Your task to perform on an android device: Open internet settings Image 0: 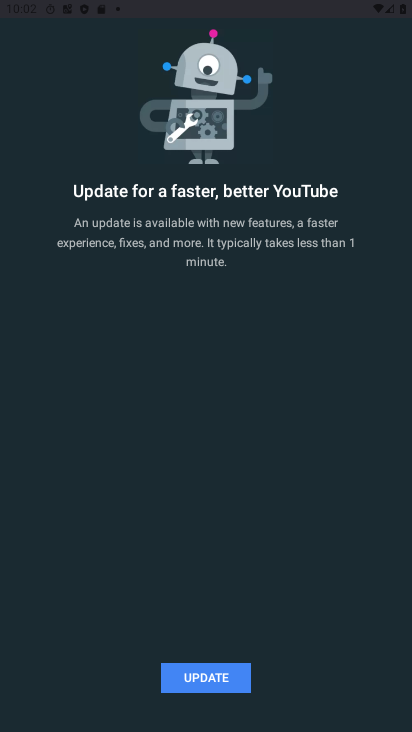
Step 0: press back button
Your task to perform on an android device: Open internet settings Image 1: 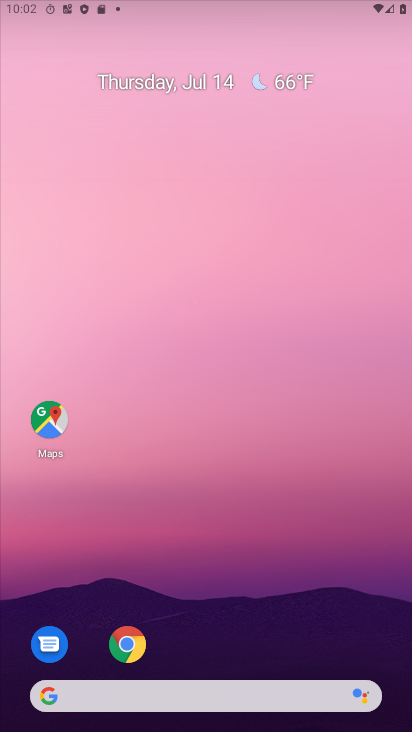
Step 1: drag from (212, 647) to (282, 211)
Your task to perform on an android device: Open internet settings Image 2: 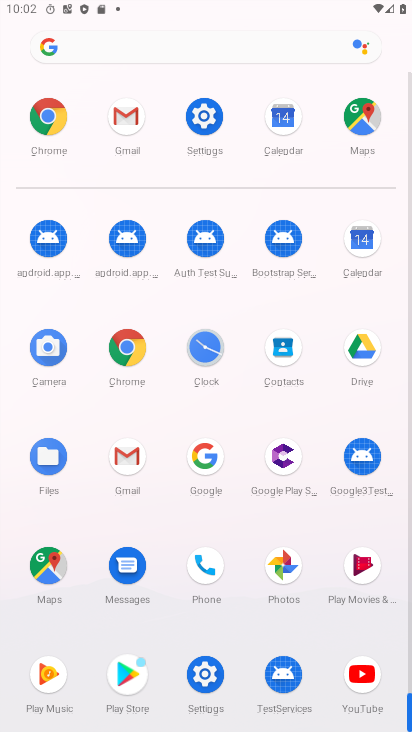
Step 2: click (48, 118)
Your task to perform on an android device: Open internet settings Image 3: 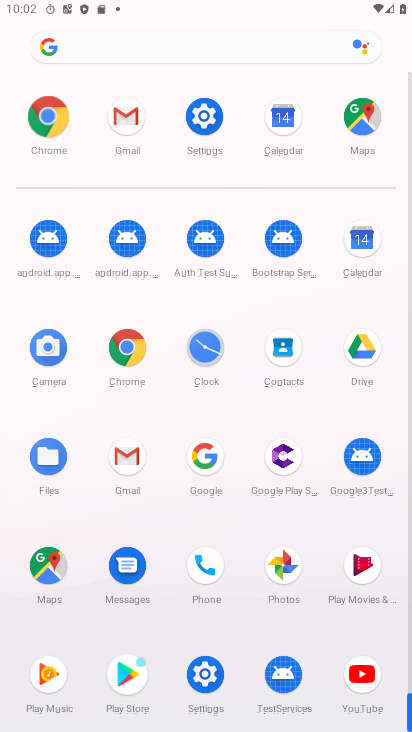
Step 3: click (48, 118)
Your task to perform on an android device: Open internet settings Image 4: 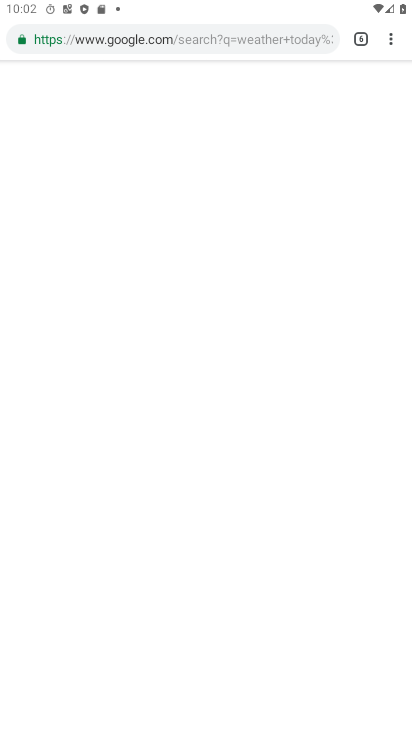
Step 4: press back button
Your task to perform on an android device: Open internet settings Image 5: 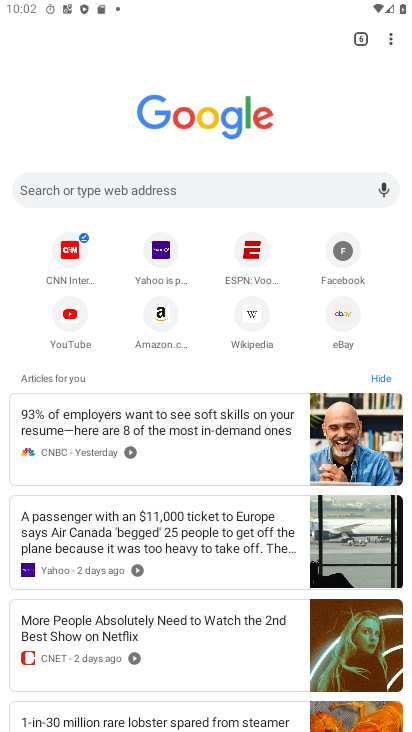
Step 5: press home button
Your task to perform on an android device: Open internet settings Image 6: 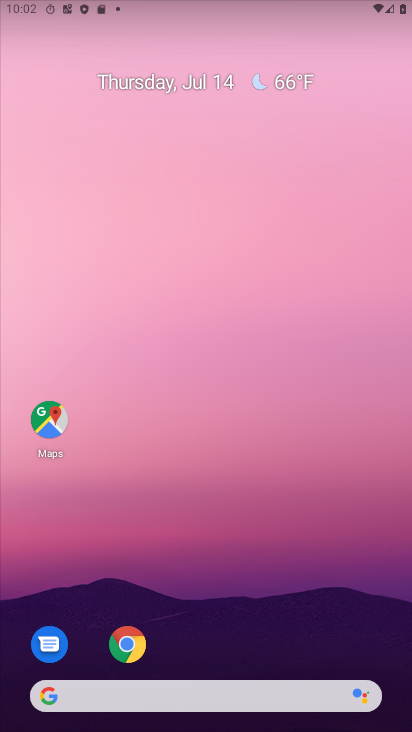
Step 6: drag from (288, 665) to (258, 211)
Your task to perform on an android device: Open internet settings Image 7: 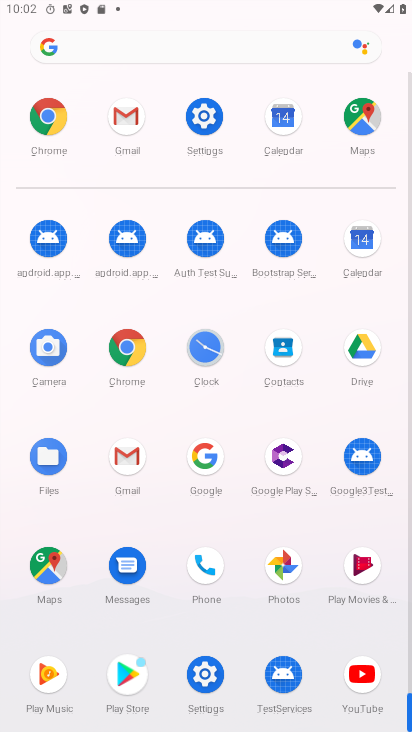
Step 7: click (211, 116)
Your task to perform on an android device: Open internet settings Image 8: 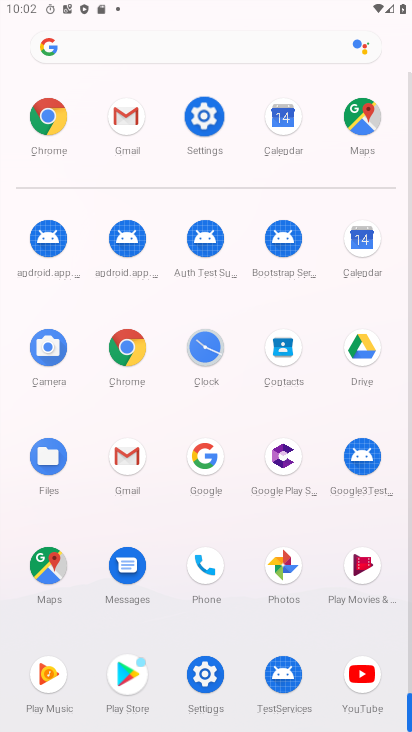
Step 8: click (210, 114)
Your task to perform on an android device: Open internet settings Image 9: 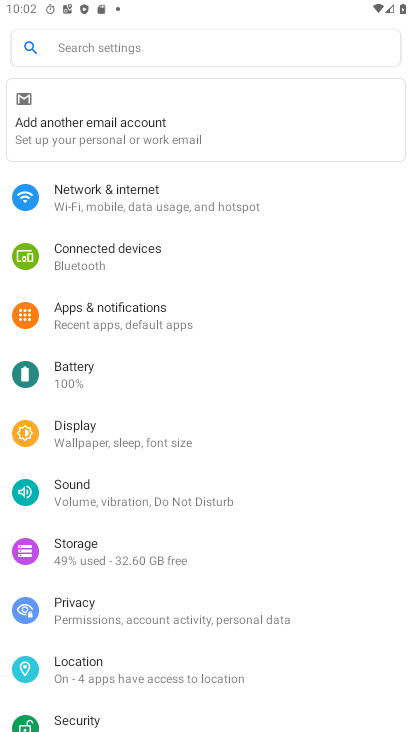
Step 9: click (115, 206)
Your task to perform on an android device: Open internet settings Image 10: 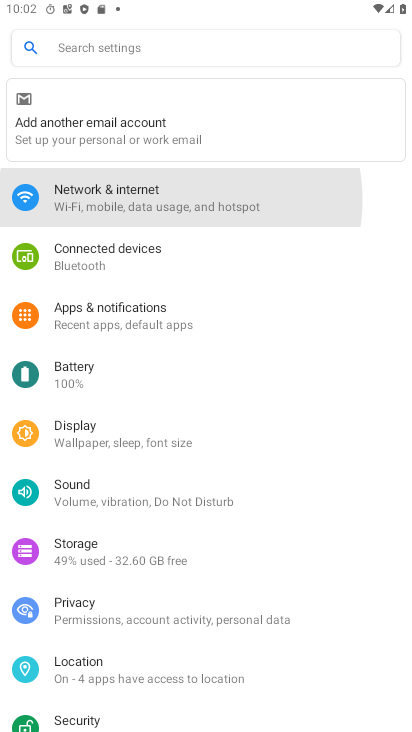
Step 10: click (118, 197)
Your task to perform on an android device: Open internet settings Image 11: 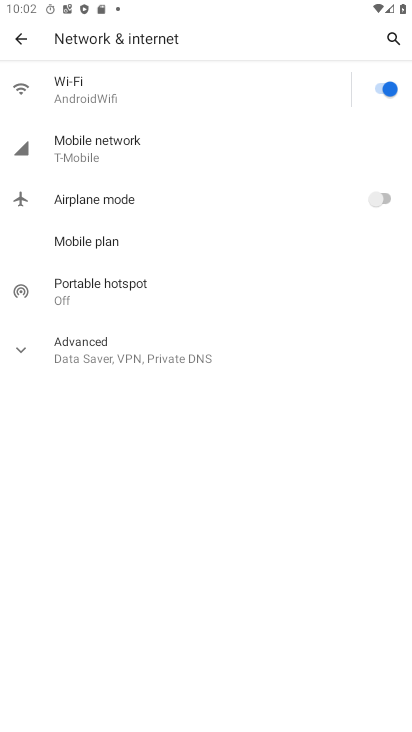
Step 11: click (82, 153)
Your task to perform on an android device: Open internet settings Image 12: 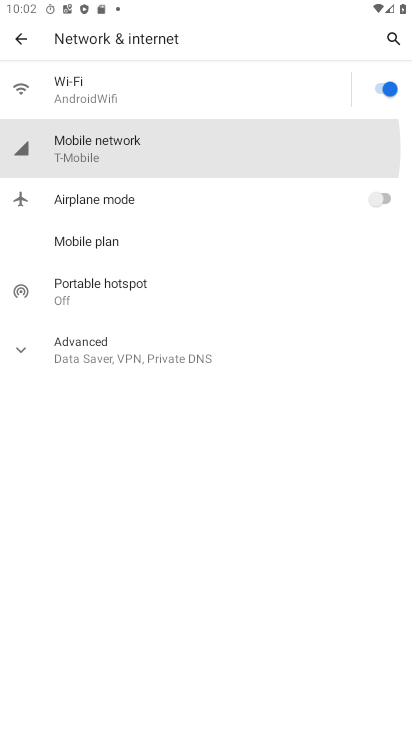
Step 12: click (81, 154)
Your task to perform on an android device: Open internet settings Image 13: 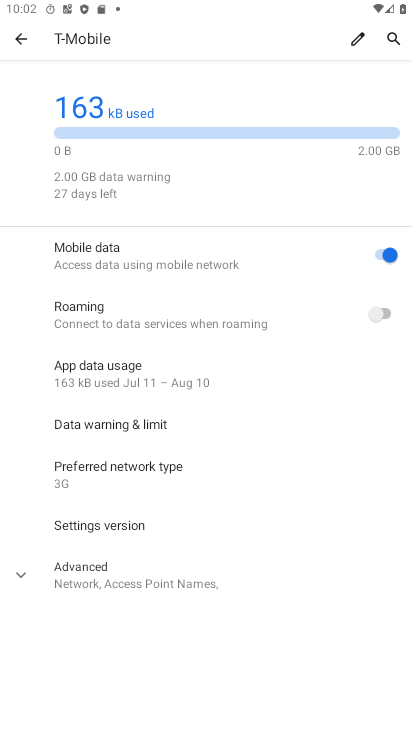
Step 13: click (14, 31)
Your task to perform on an android device: Open internet settings Image 14: 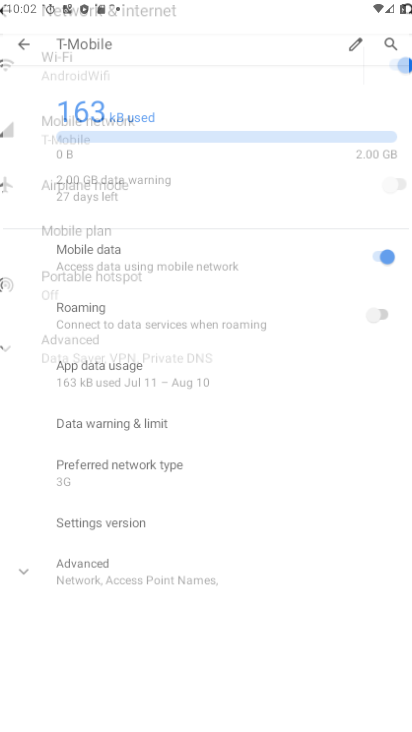
Step 14: task complete